Your task to perform on an android device: open sync settings in chrome Image 0: 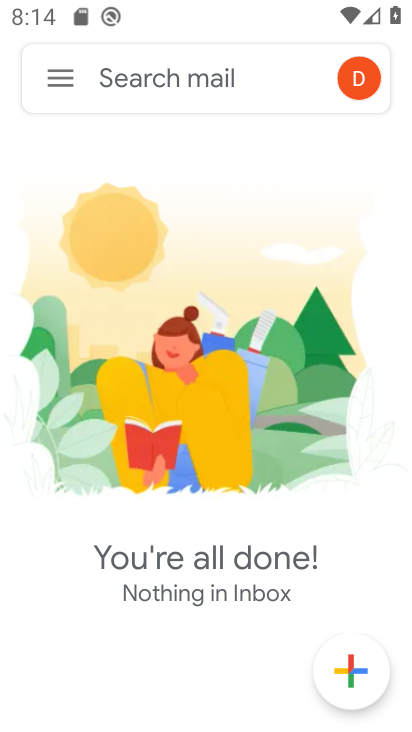
Step 0: press home button
Your task to perform on an android device: open sync settings in chrome Image 1: 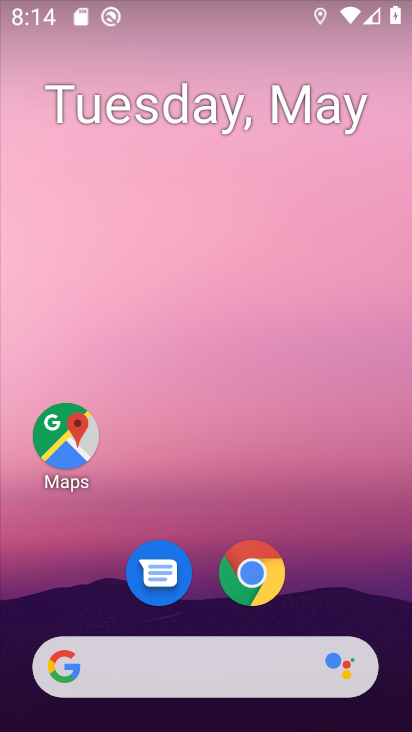
Step 1: click (247, 570)
Your task to perform on an android device: open sync settings in chrome Image 2: 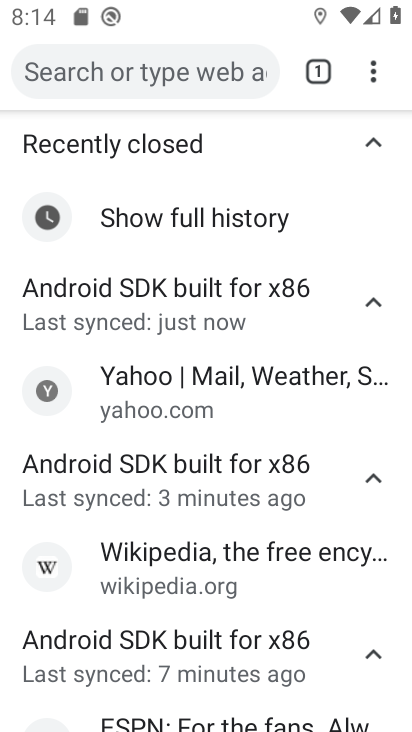
Step 2: click (370, 79)
Your task to perform on an android device: open sync settings in chrome Image 3: 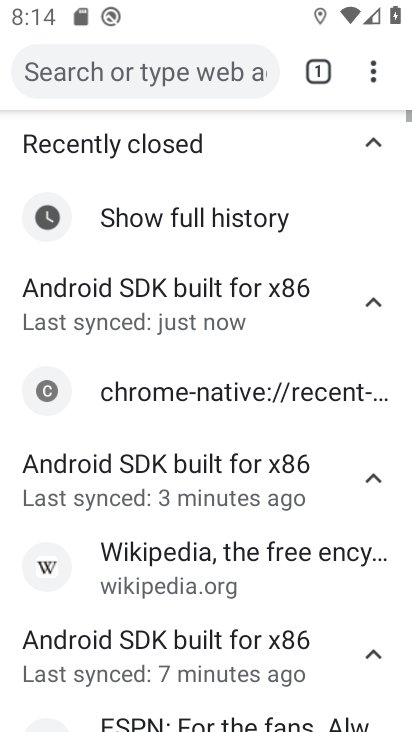
Step 3: click (372, 70)
Your task to perform on an android device: open sync settings in chrome Image 4: 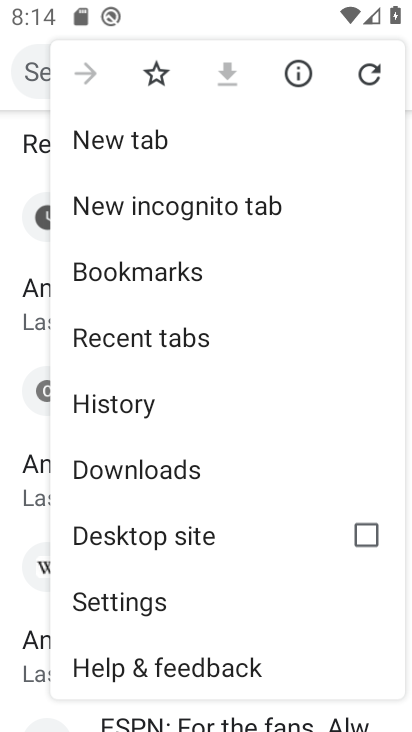
Step 4: click (107, 605)
Your task to perform on an android device: open sync settings in chrome Image 5: 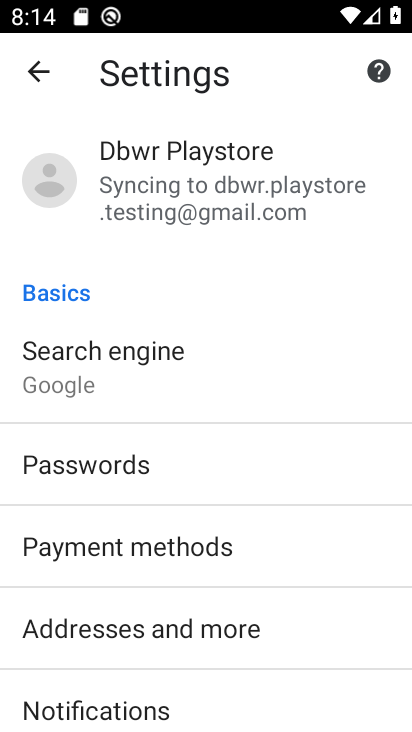
Step 5: drag from (298, 627) to (308, 337)
Your task to perform on an android device: open sync settings in chrome Image 6: 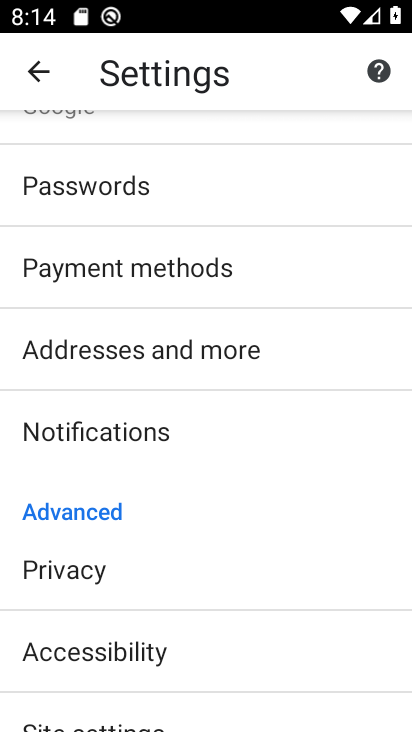
Step 6: drag from (276, 591) to (298, 410)
Your task to perform on an android device: open sync settings in chrome Image 7: 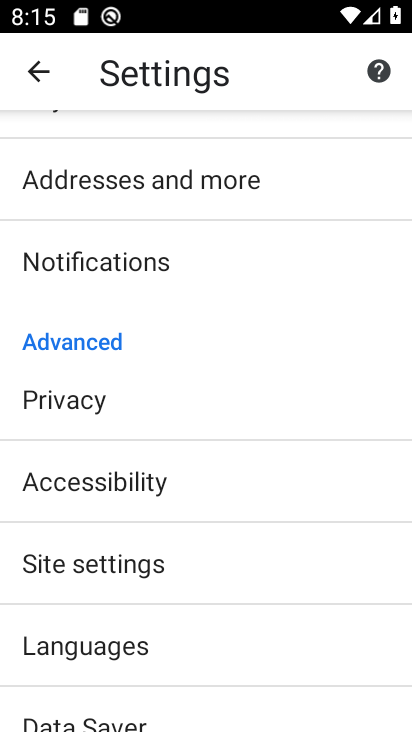
Step 7: click (103, 559)
Your task to perform on an android device: open sync settings in chrome Image 8: 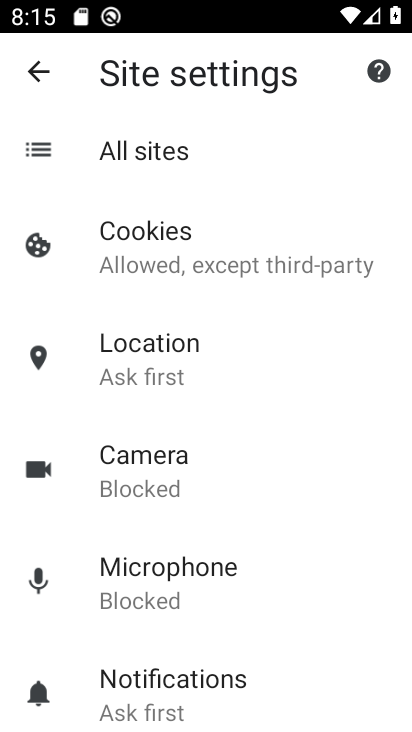
Step 8: drag from (292, 683) to (313, 465)
Your task to perform on an android device: open sync settings in chrome Image 9: 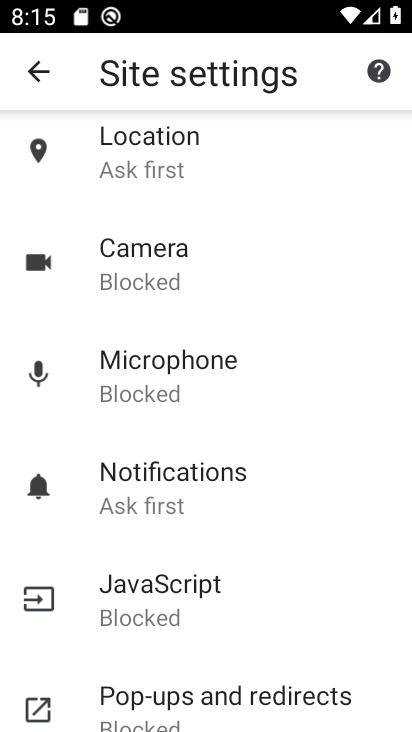
Step 9: drag from (328, 645) to (327, 383)
Your task to perform on an android device: open sync settings in chrome Image 10: 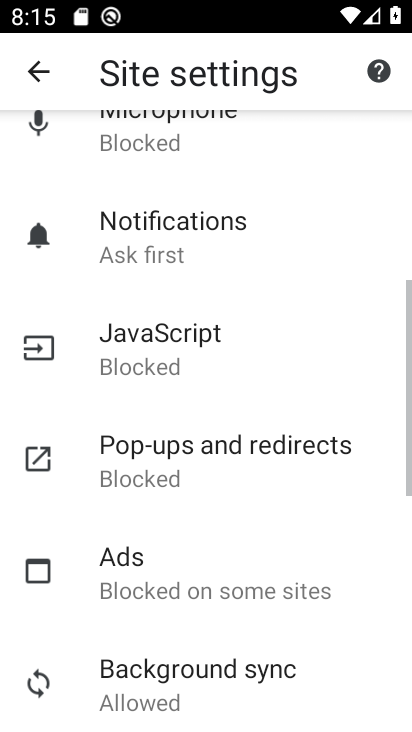
Step 10: click (202, 666)
Your task to perform on an android device: open sync settings in chrome Image 11: 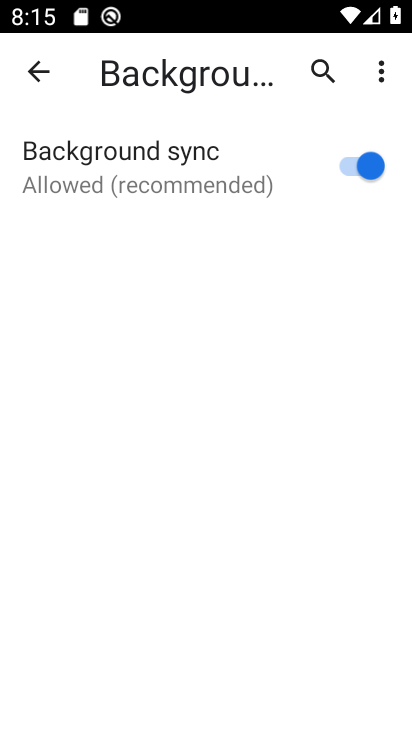
Step 11: task complete